Your task to perform on an android device: toggle wifi Image 0: 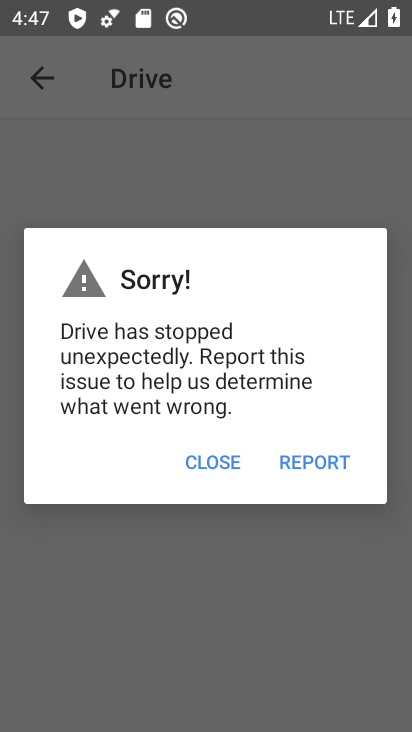
Step 0: press back button
Your task to perform on an android device: toggle wifi Image 1: 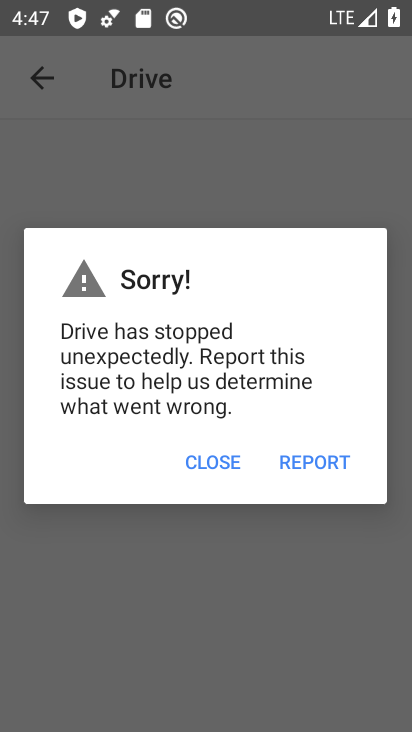
Step 1: press home button
Your task to perform on an android device: toggle wifi Image 2: 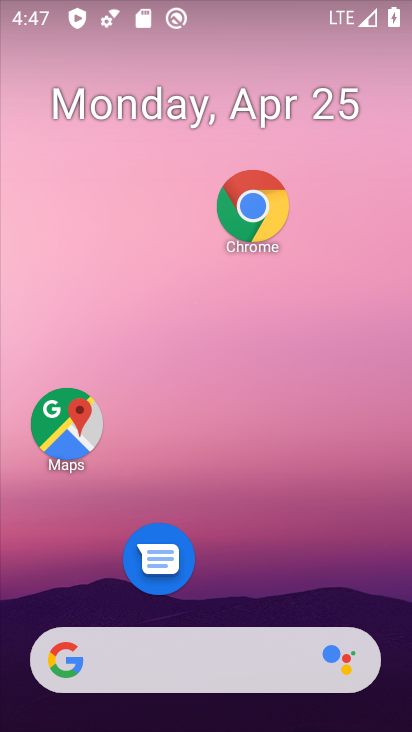
Step 2: drag from (280, 548) to (204, 48)
Your task to perform on an android device: toggle wifi Image 3: 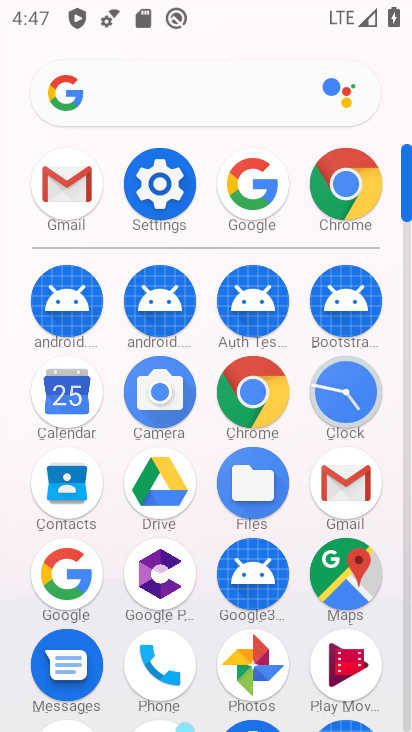
Step 3: click (159, 181)
Your task to perform on an android device: toggle wifi Image 4: 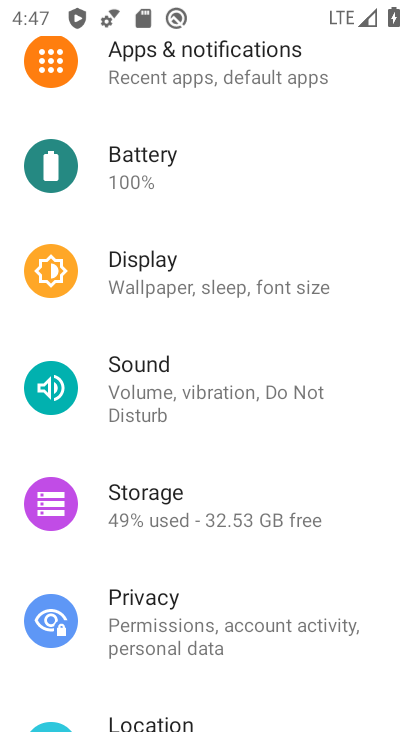
Step 4: drag from (212, 141) to (224, 252)
Your task to perform on an android device: toggle wifi Image 5: 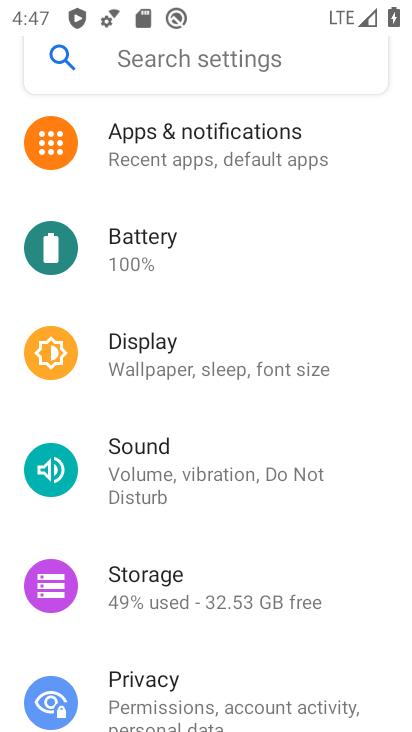
Step 5: drag from (213, 203) to (236, 326)
Your task to perform on an android device: toggle wifi Image 6: 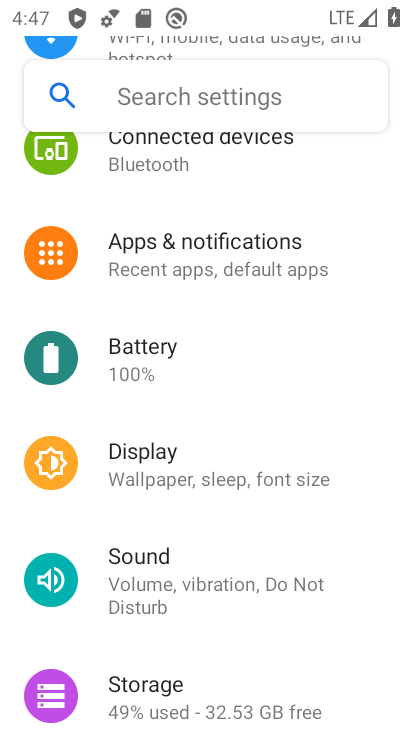
Step 6: drag from (215, 206) to (229, 342)
Your task to perform on an android device: toggle wifi Image 7: 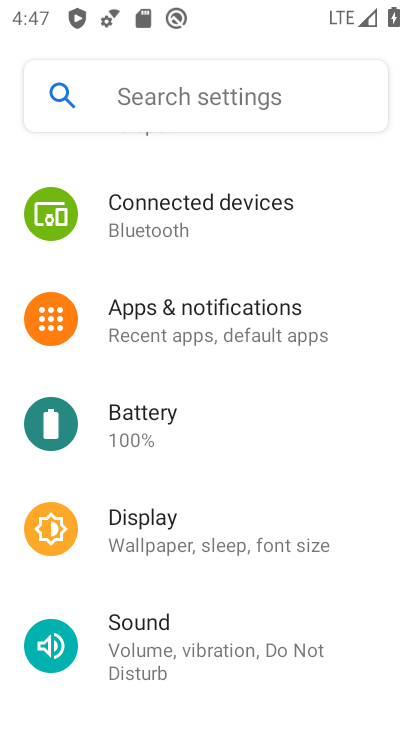
Step 7: drag from (208, 180) to (215, 354)
Your task to perform on an android device: toggle wifi Image 8: 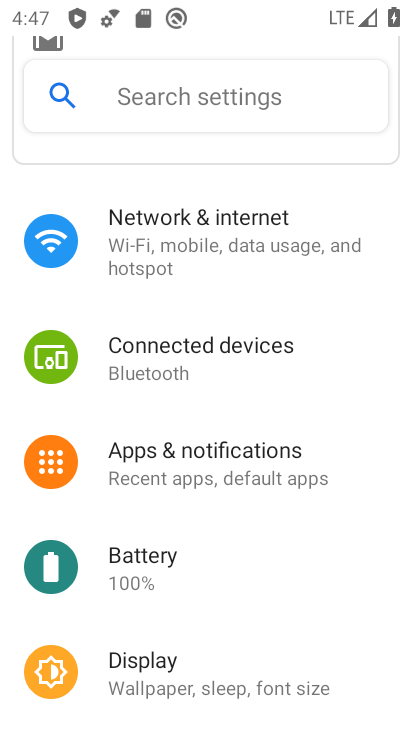
Step 8: click (152, 219)
Your task to perform on an android device: toggle wifi Image 9: 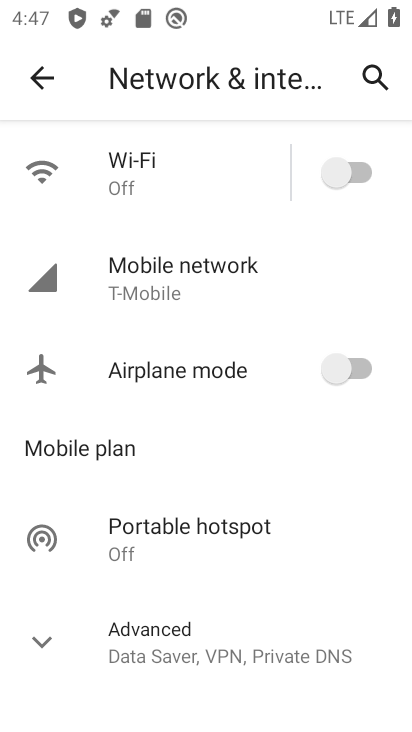
Step 9: click (362, 168)
Your task to perform on an android device: toggle wifi Image 10: 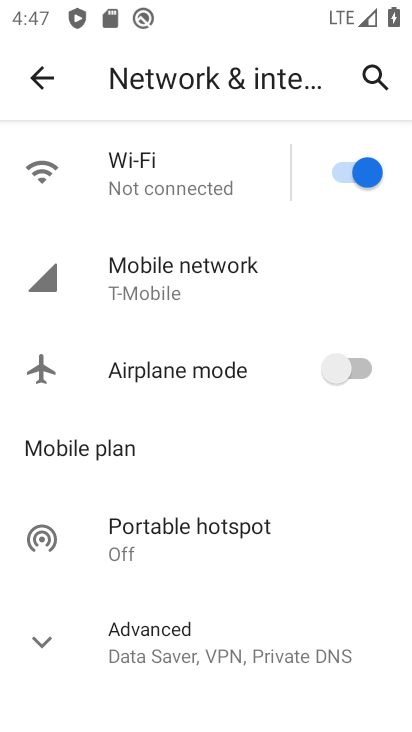
Step 10: task complete